Your task to perform on an android device: What's the weather going to be this weekend? Image 0: 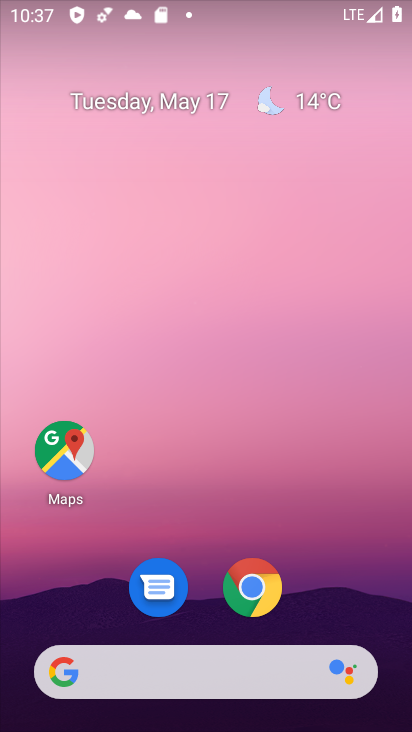
Step 0: click (319, 89)
Your task to perform on an android device: What's the weather going to be this weekend? Image 1: 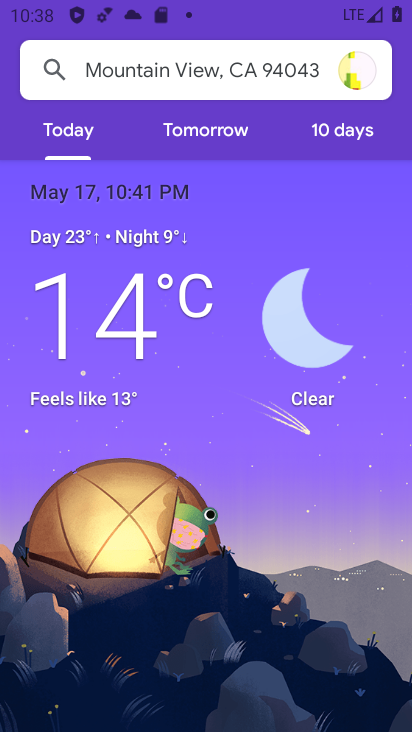
Step 1: click (348, 126)
Your task to perform on an android device: What's the weather going to be this weekend? Image 2: 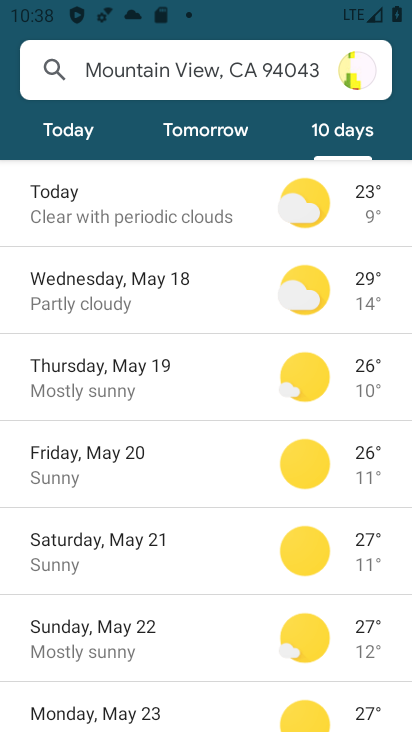
Step 2: task complete